Your task to perform on an android device: install app "Spotify" Image 0: 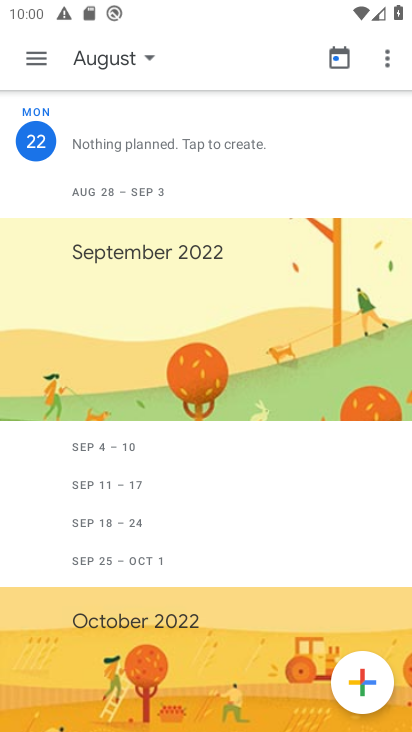
Step 0: press home button
Your task to perform on an android device: install app "Spotify" Image 1: 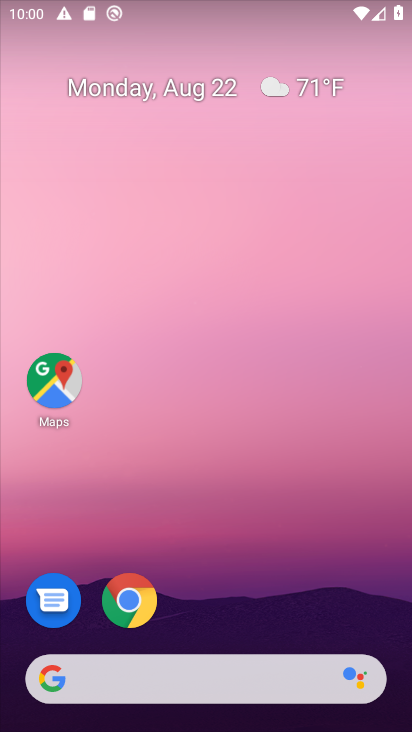
Step 1: drag from (215, 565) to (234, 138)
Your task to perform on an android device: install app "Spotify" Image 2: 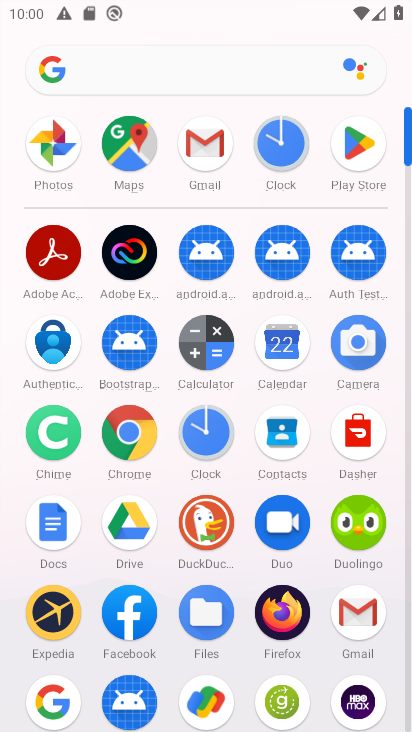
Step 2: click (355, 131)
Your task to perform on an android device: install app "Spotify" Image 3: 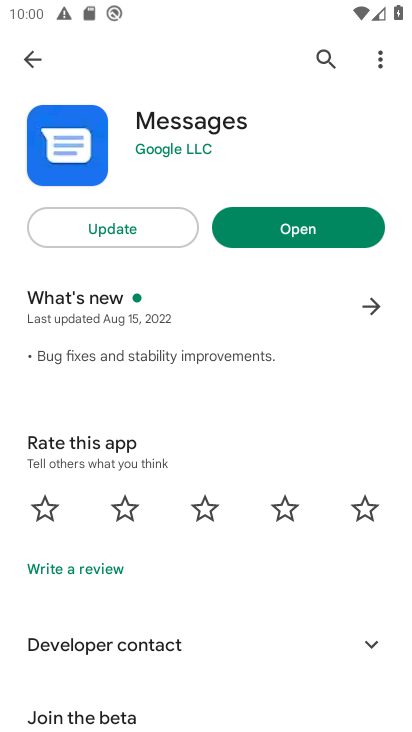
Step 3: click (333, 51)
Your task to perform on an android device: install app "Spotify" Image 4: 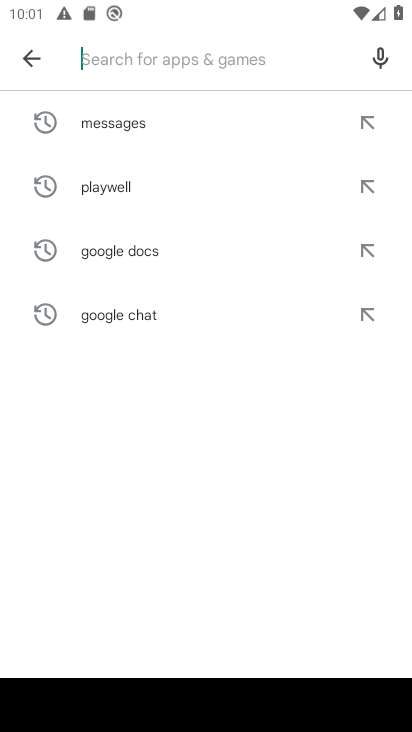
Step 4: type "Spotify"
Your task to perform on an android device: install app "Spotify" Image 5: 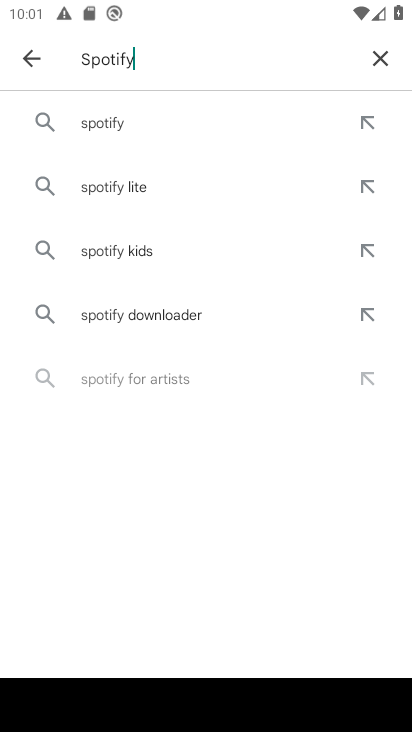
Step 5: type ""
Your task to perform on an android device: install app "Spotify" Image 6: 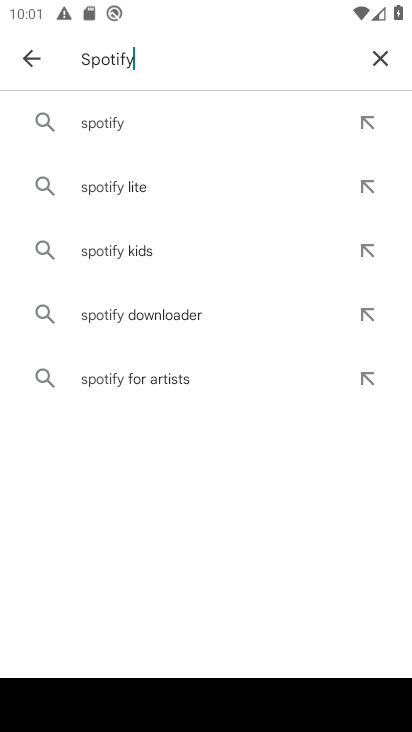
Step 6: click (153, 119)
Your task to perform on an android device: install app "Spotify" Image 7: 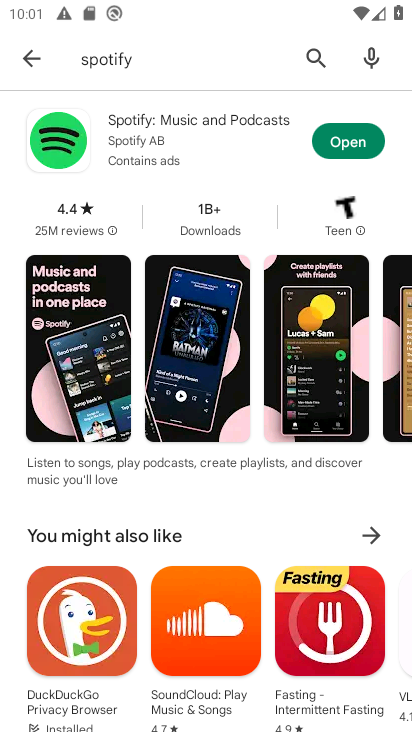
Step 7: task complete